Your task to perform on an android device: What's the news in India? Image 0: 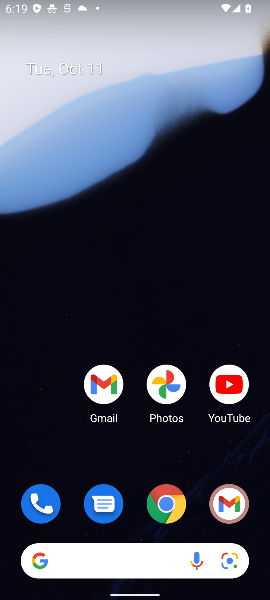
Step 0: click (104, 574)
Your task to perform on an android device: What's the news in India? Image 1: 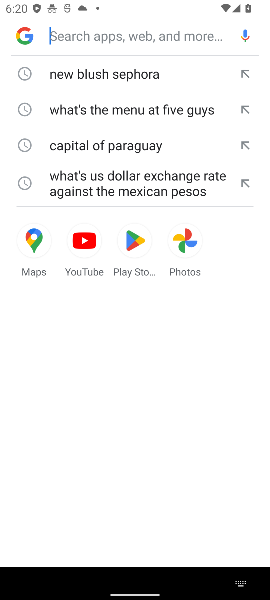
Step 1: click (111, 34)
Your task to perform on an android device: What's the news in India? Image 2: 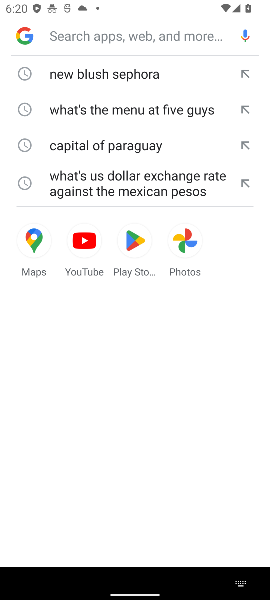
Step 2: type "What's the news in India?"
Your task to perform on an android device: What's the news in India? Image 3: 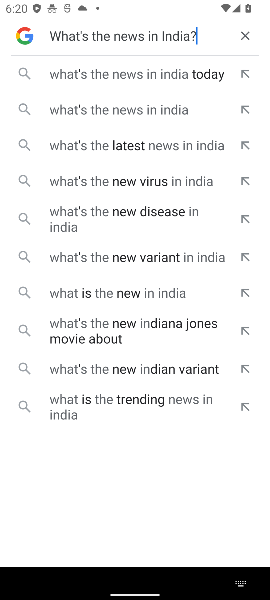
Step 3: click (160, 77)
Your task to perform on an android device: What's the news in India? Image 4: 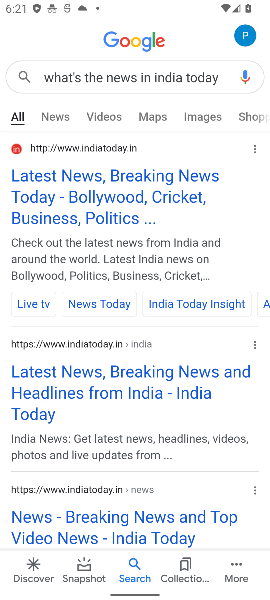
Step 4: click (102, 191)
Your task to perform on an android device: What's the news in India? Image 5: 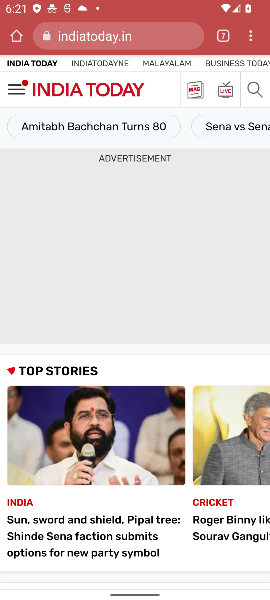
Step 5: task complete